Your task to perform on an android device: add a contact in the contacts app Image 0: 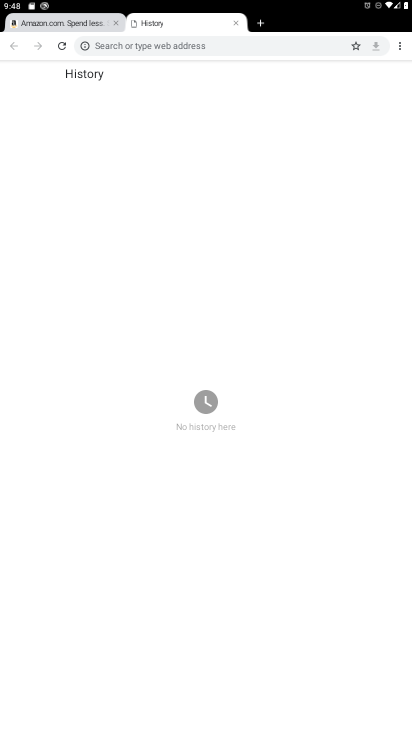
Step 0: press home button
Your task to perform on an android device: add a contact in the contacts app Image 1: 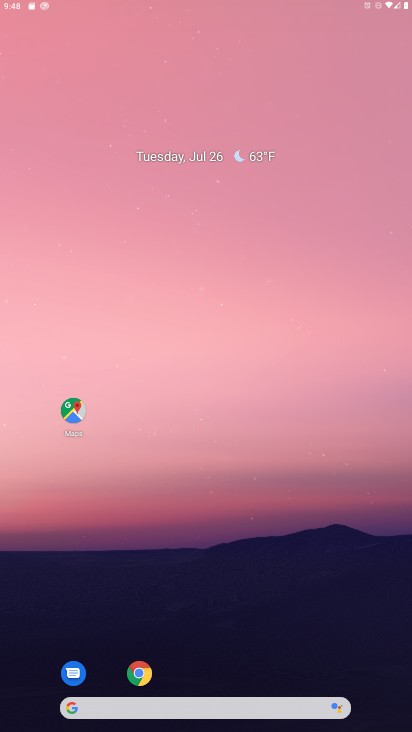
Step 1: drag from (387, 683) to (202, 65)
Your task to perform on an android device: add a contact in the contacts app Image 2: 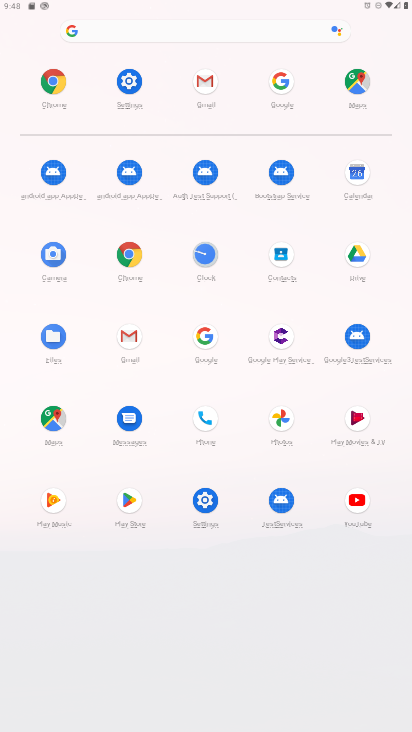
Step 2: click (289, 254)
Your task to perform on an android device: add a contact in the contacts app Image 3: 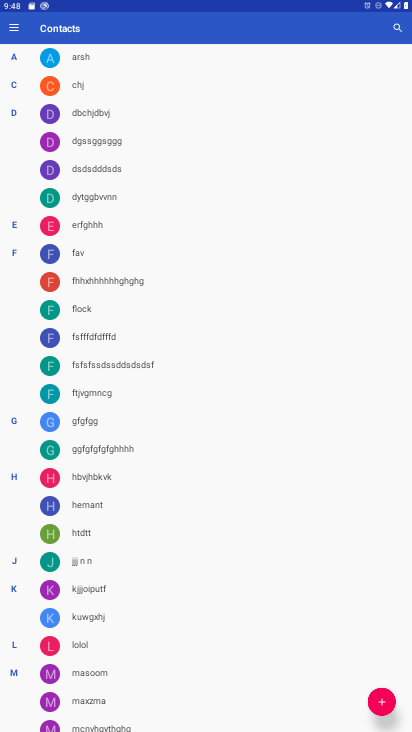
Step 3: click (385, 705)
Your task to perform on an android device: add a contact in the contacts app Image 4: 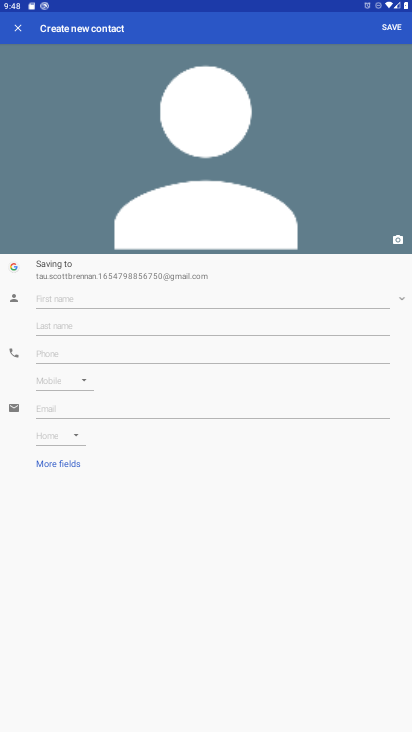
Step 4: click (72, 295)
Your task to perform on an android device: add a contact in the contacts app Image 5: 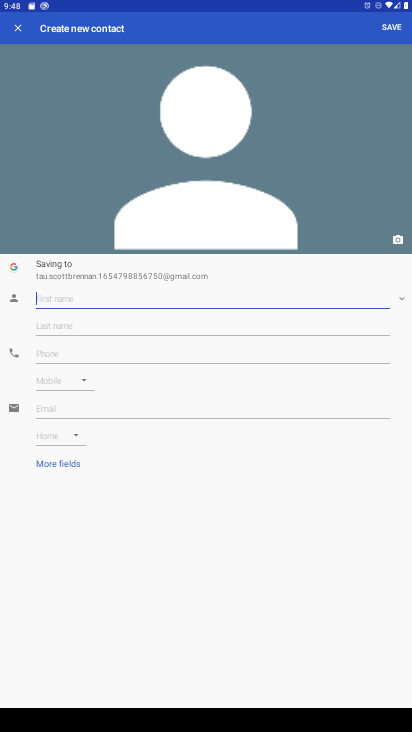
Step 5: type "erish"
Your task to perform on an android device: add a contact in the contacts app Image 6: 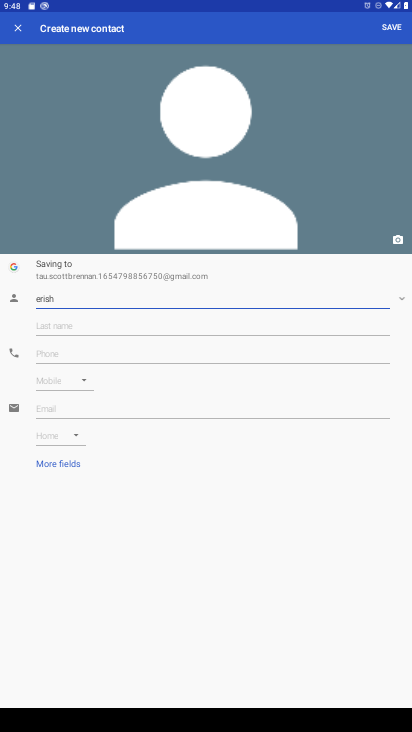
Step 6: click (385, 26)
Your task to perform on an android device: add a contact in the contacts app Image 7: 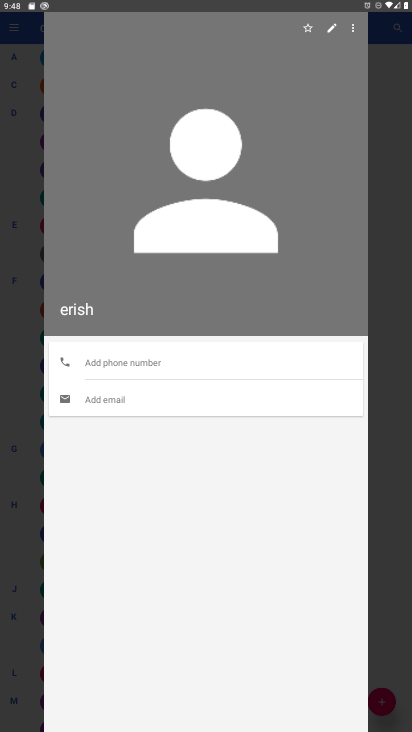
Step 7: task complete